Your task to perform on an android device: Open the stopwatch Image 0: 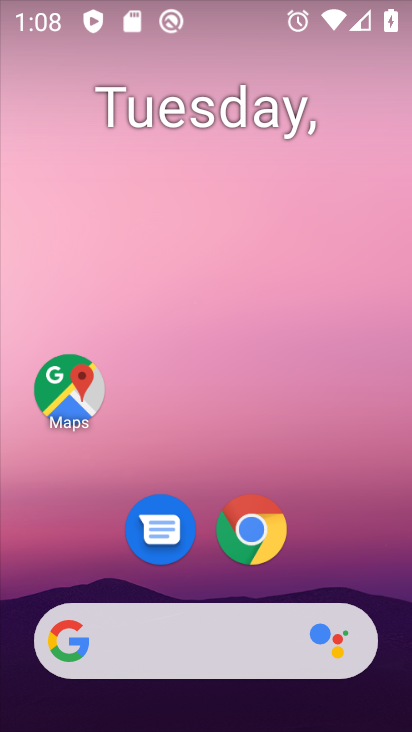
Step 0: drag from (392, 626) to (171, 188)
Your task to perform on an android device: Open the stopwatch Image 1: 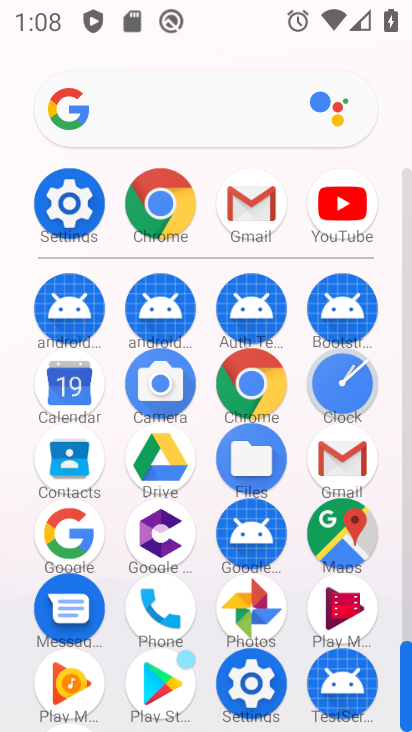
Step 1: click (332, 380)
Your task to perform on an android device: Open the stopwatch Image 2: 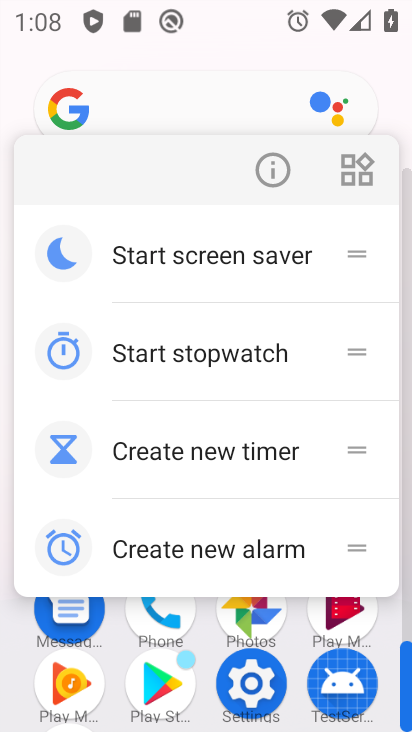
Step 2: press back button
Your task to perform on an android device: Open the stopwatch Image 3: 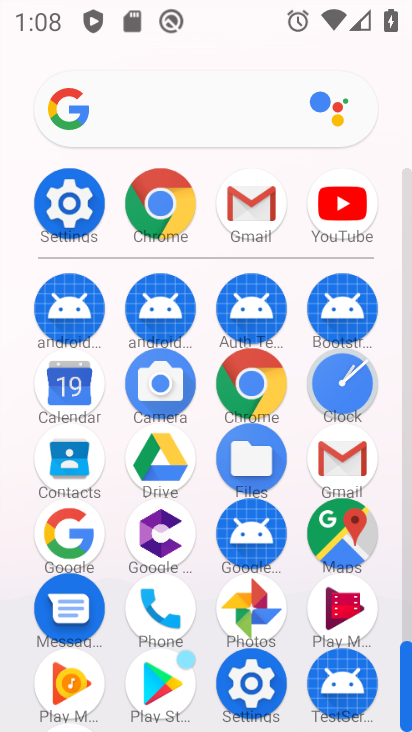
Step 3: click (352, 389)
Your task to perform on an android device: Open the stopwatch Image 4: 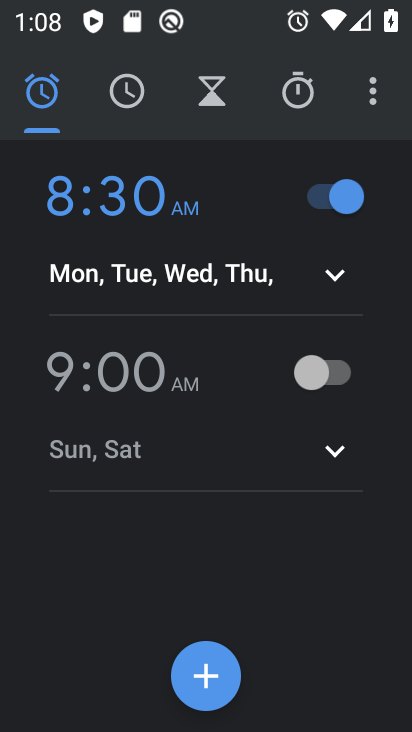
Step 4: click (297, 103)
Your task to perform on an android device: Open the stopwatch Image 5: 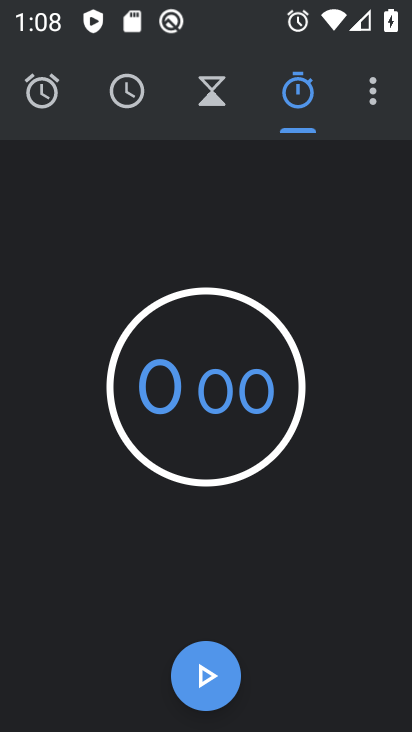
Step 5: task complete